Your task to perform on an android device: Play the last video I watched on Youtube Image 0: 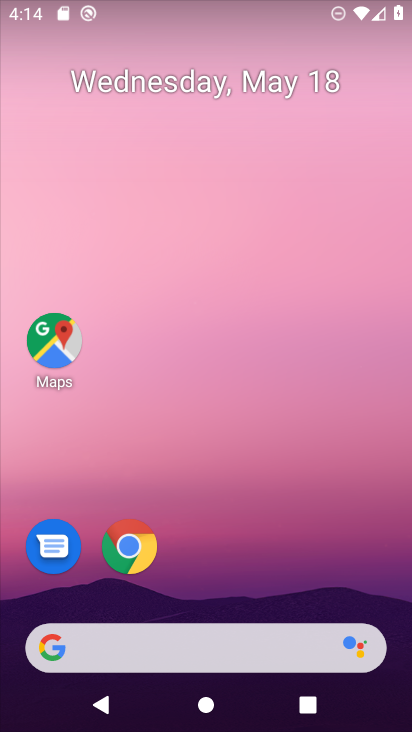
Step 0: drag from (213, 582) to (300, 60)
Your task to perform on an android device: Play the last video I watched on Youtube Image 1: 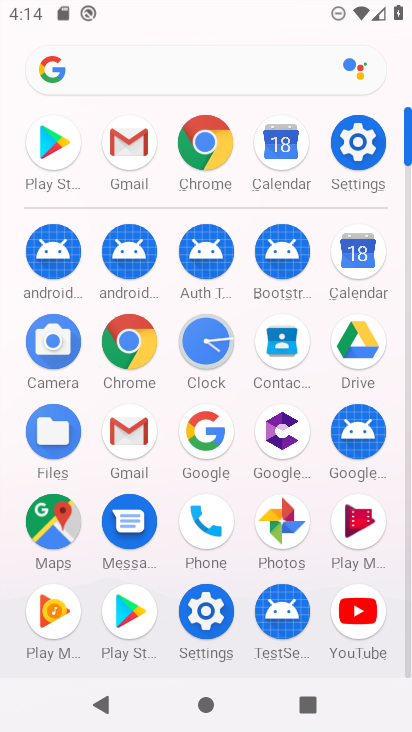
Step 1: click (358, 633)
Your task to perform on an android device: Play the last video I watched on Youtube Image 2: 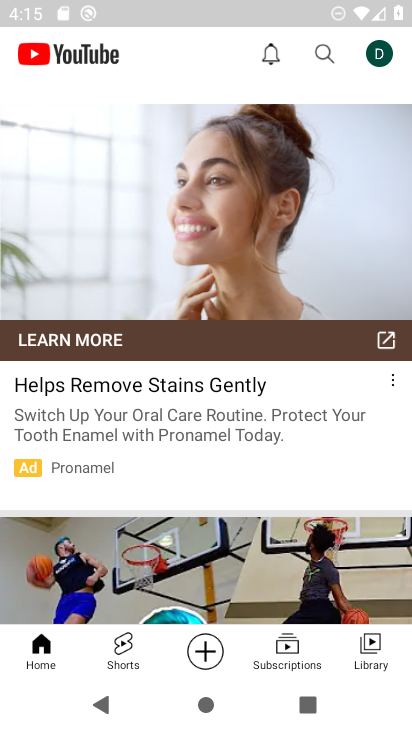
Step 2: click (374, 656)
Your task to perform on an android device: Play the last video I watched on Youtube Image 3: 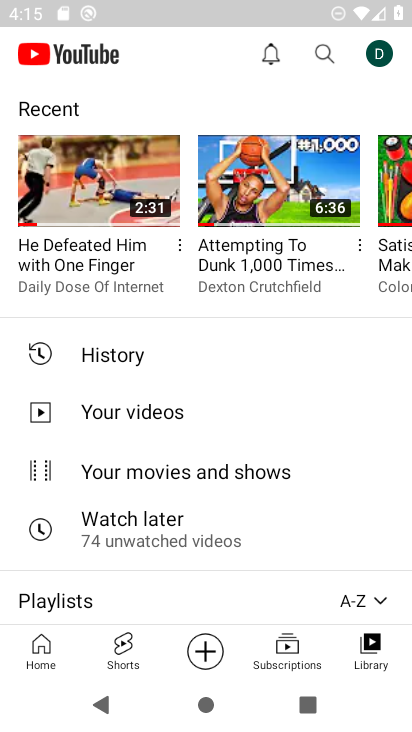
Step 3: click (94, 182)
Your task to perform on an android device: Play the last video I watched on Youtube Image 4: 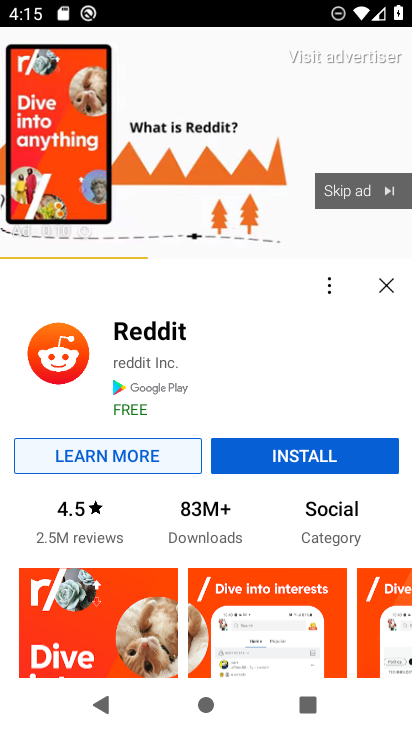
Step 4: task complete